Your task to perform on an android device: Open Android settings Image 0: 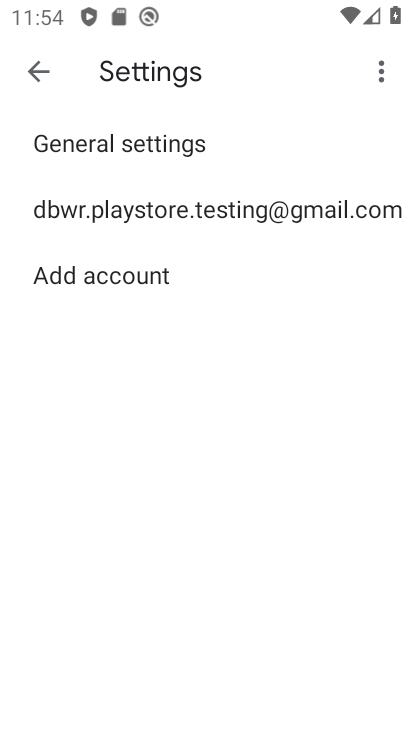
Step 0: task complete